Your task to perform on an android device: toggle show notifications on the lock screen Image 0: 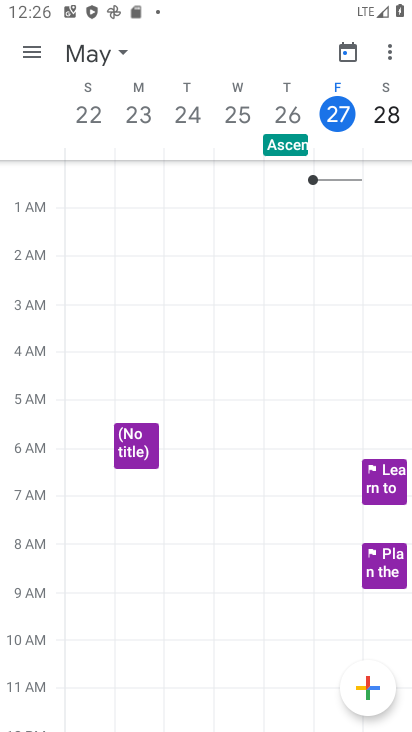
Step 0: press home button
Your task to perform on an android device: toggle show notifications on the lock screen Image 1: 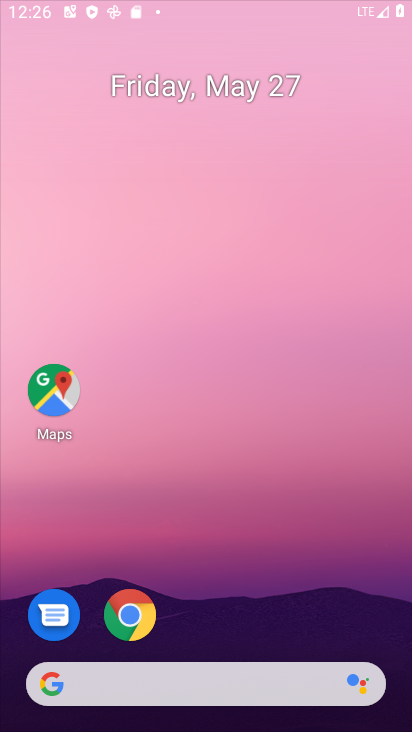
Step 1: drag from (263, 652) to (281, 5)
Your task to perform on an android device: toggle show notifications on the lock screen Image 2: 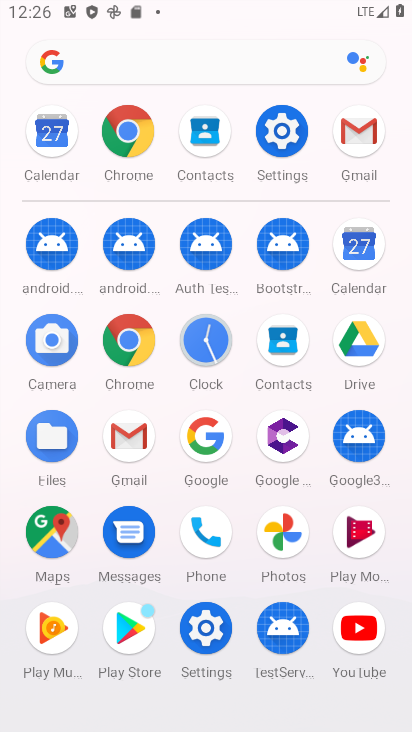
Step 2: click (285, 147)
Your task to perform on an android device: toggle show notifications on the lock screen Image 3: 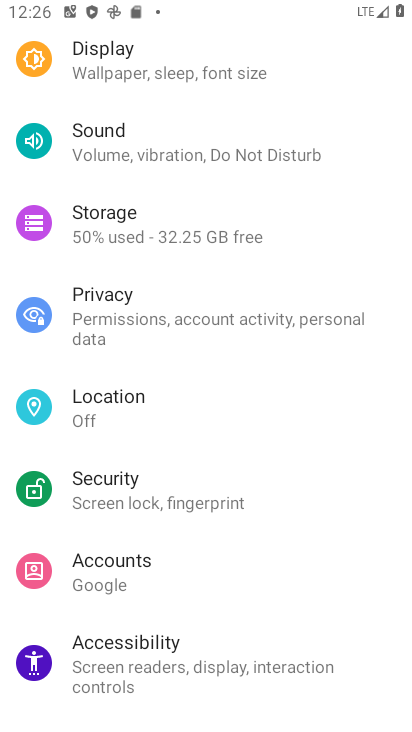
Step 3: drag from (234, 126) to (220, 731)
Your task to perform on an android device: toggle show notifications on the lock screen Image 4: 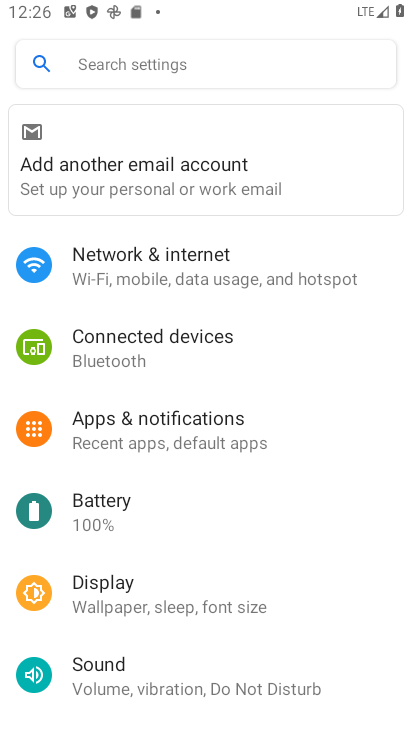
Step 4: click (158, 451)
Your task to perform on an android device: toggle show notifications on the lock screen Image 5: 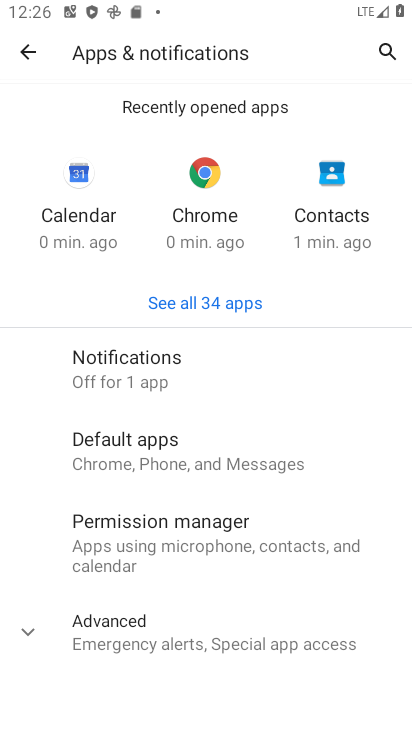
Step 5: click (126, 373)
Your task to perform on an android device: toggle show notifications on the lock screen Image 6: 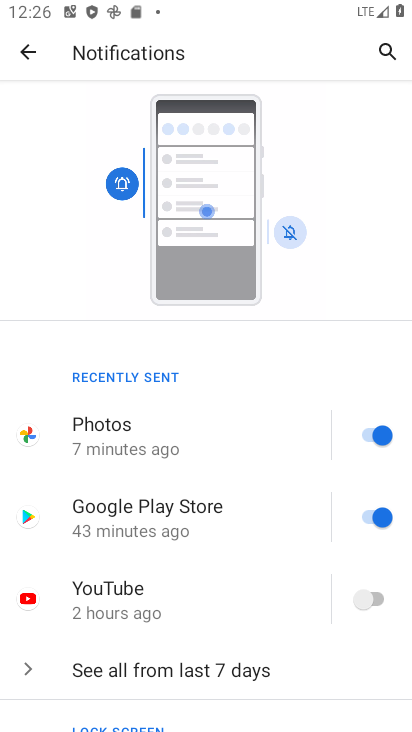
Step 6: drag from (182, 632) to (188, 210)
Your task to perform on an android device: toggle show notifications on the lock screen Image 7: 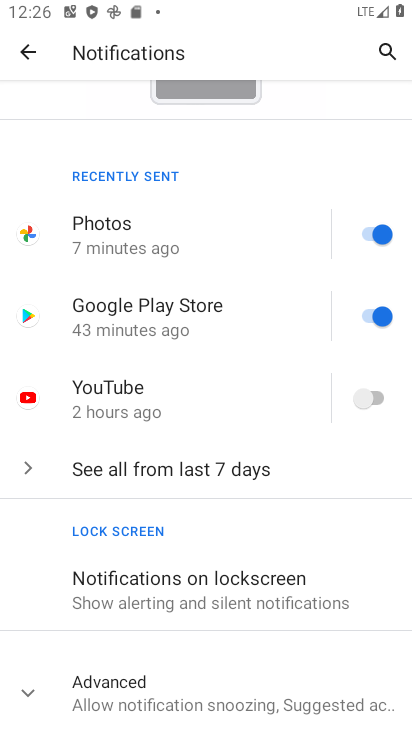
Step 7: click (152, 588)
Your task to perform on an android device: toggle show notifications on the lock screen Image 8: 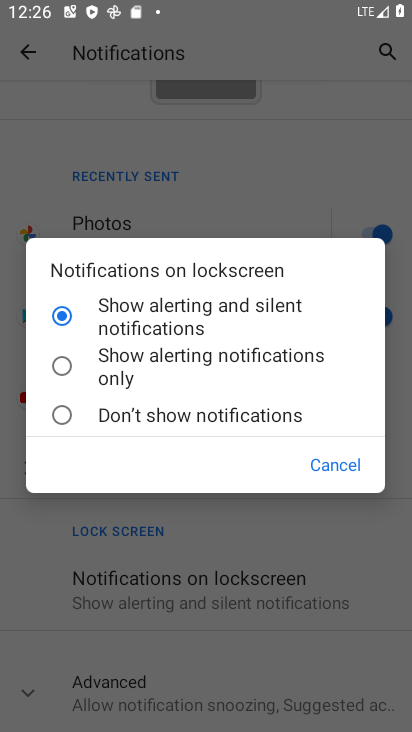
Step 8: click (148, 356)
Your task to perform on an android device: toggle show notifications on the lock screen Image 9: 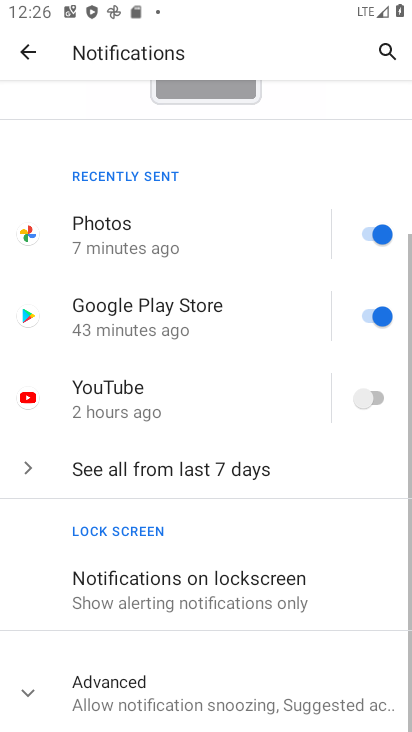
Step 9: task complete